Your task to perform on an android device: open app "Paramount+ | Peak Streaming" (install if not already installed) and go to login screen Image 0: 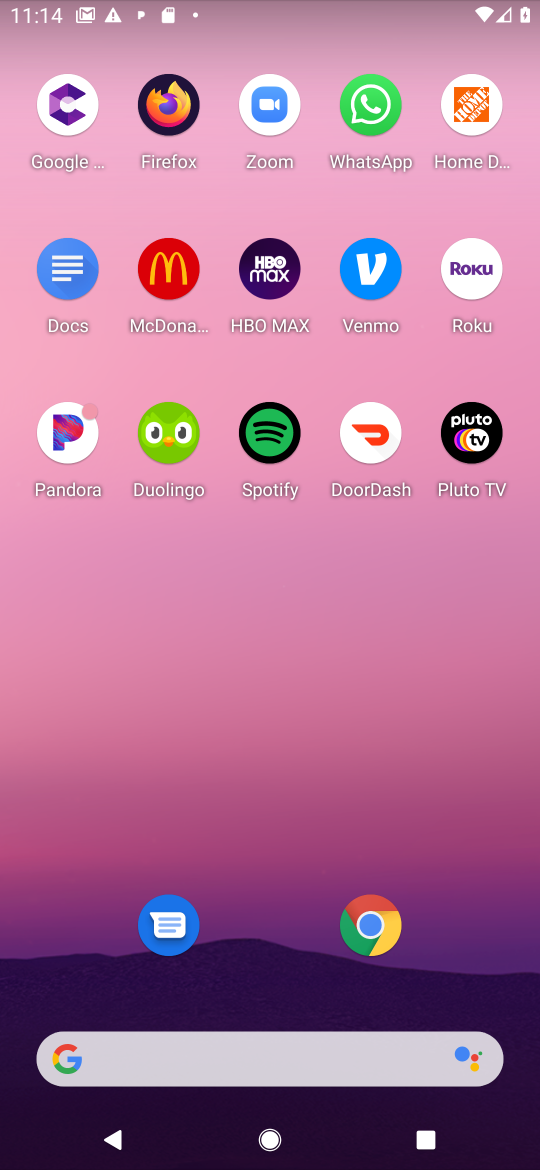
Step 0: drag from (274, 766) to (317, 119)
Your task to perform on an android device: open app "Paramount+ | Peak Streaming" (install if not already installed) and go to login screen Image 1: 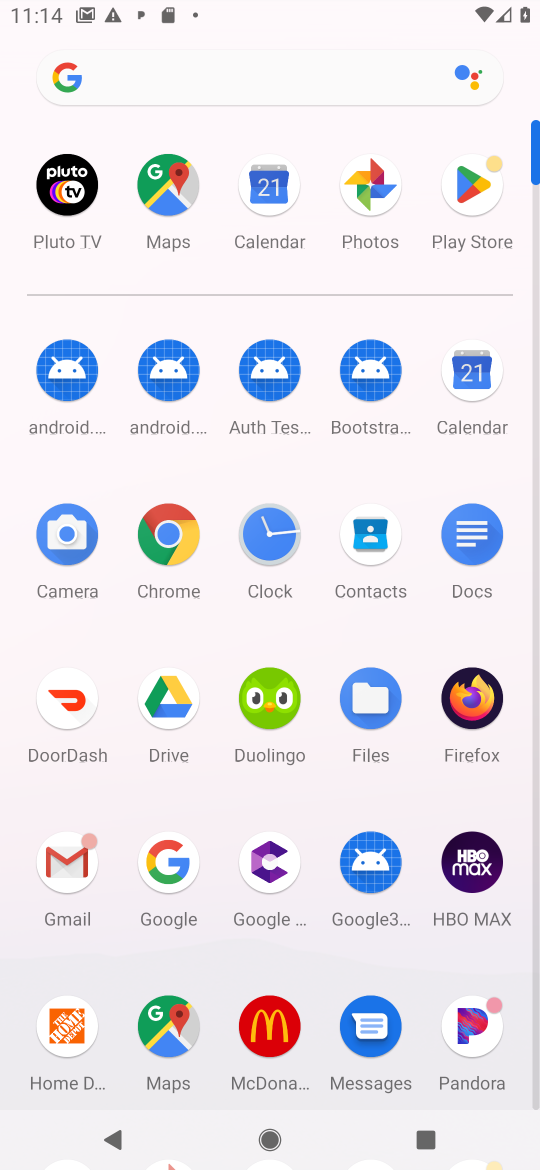
Step 1: click (473, 184)
Your task to perform on an android device: open app "Paramount+ | Peak Streaming" (install if not already installed) and go to login screen Image 2: 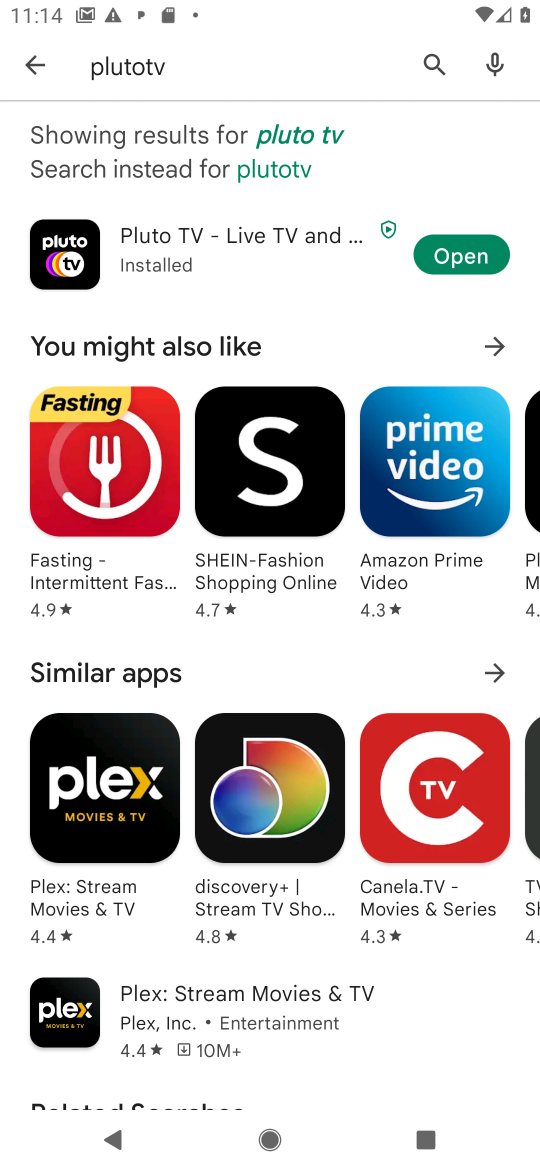
Step 2: click (424, 85)
Your task to perform on an android device: open app "Paramount+ | Peak Streaming" (install if not already installed) and go to login screen Image 3: 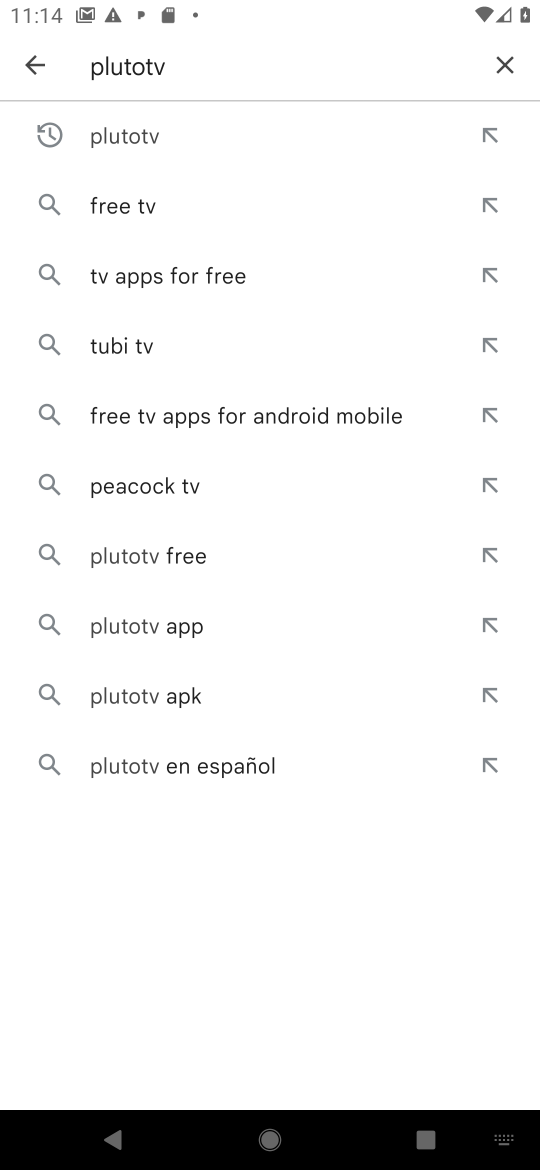
Step 3: click (517, 49)
Your task to perform on an android device: open app "Paramount+ | Peak Streaming" (install if not already installed) and go to login screen Image 4: 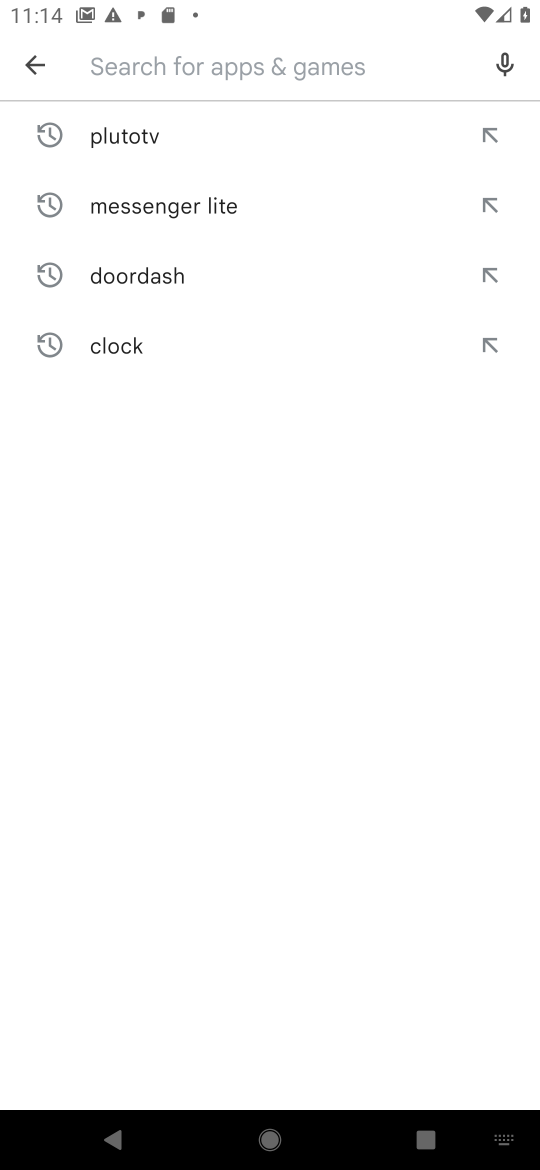
Step 4: click (276, 67)
Your task to perform on an android device: open app "Paramount+ | Peak Streaming" (install if not already installed) and go to login screen Image 5: 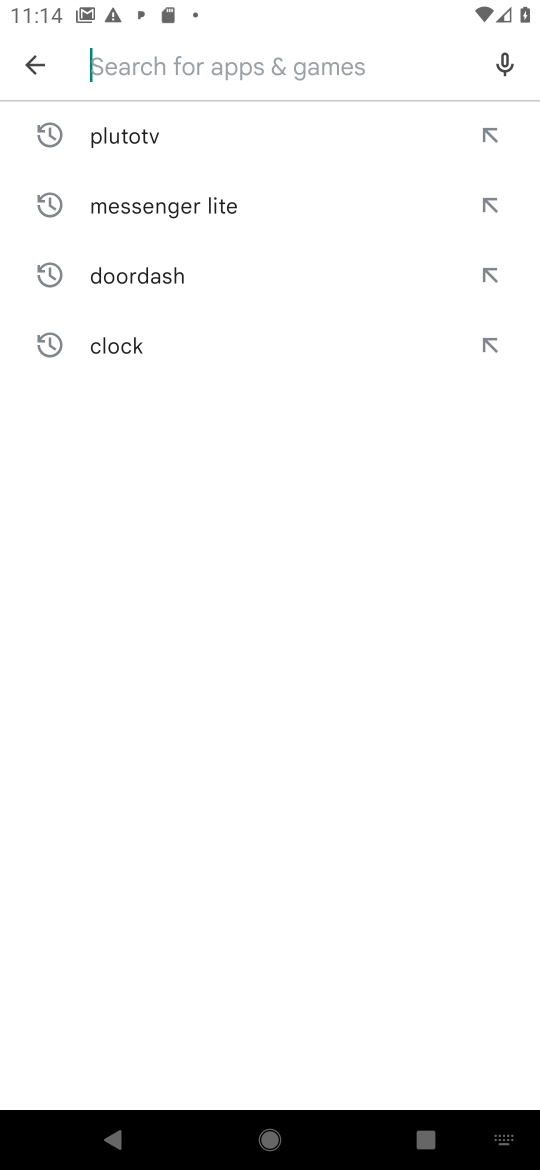
Step 5: type "paramount"
Your task to perform on an android device: open app "Paramount+ | Peak Streaming" (install if not already installed) and go to login screen Image 6: 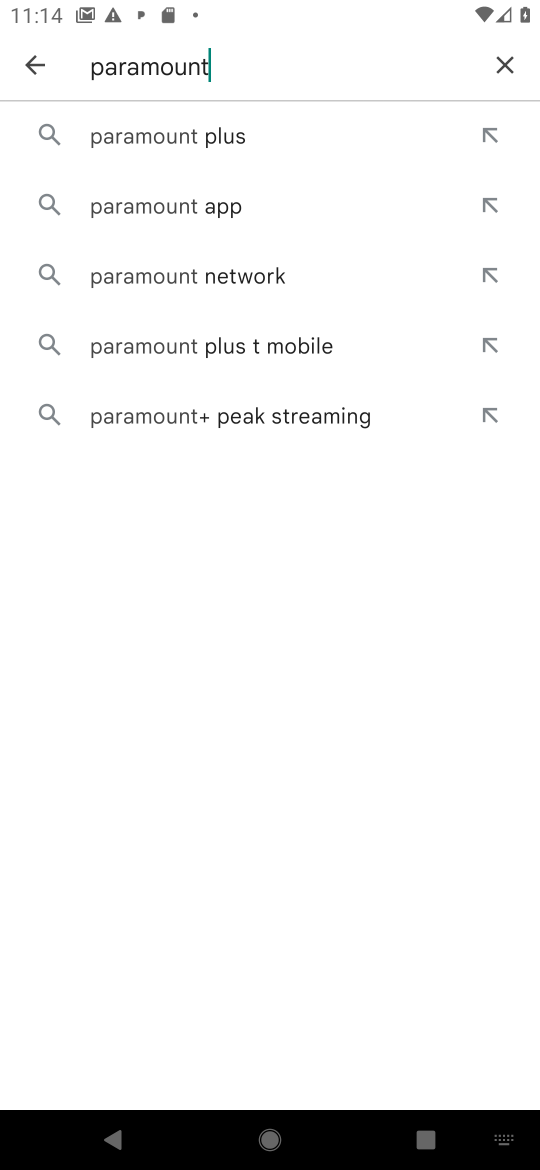
Step 6: click (275, 123)
Your task to perform on an android device: open app "Paramount+ | Peak Streaming" (install if not already installed) and go to login screen Image 7: 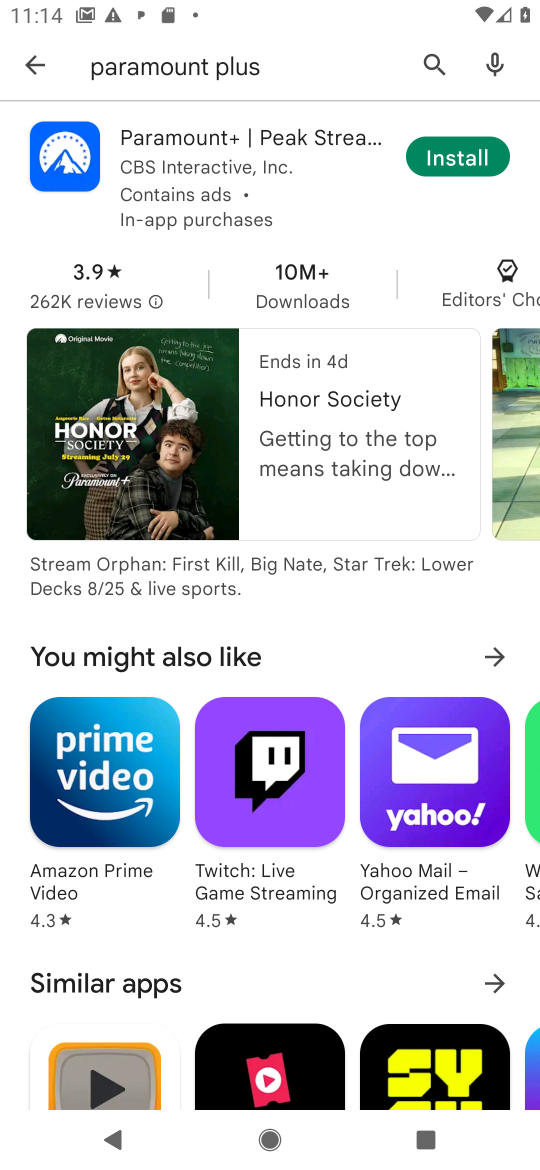
Step 7: click (477, 145)
Your task to perform on an android device: open app "Paramount+ | Peak Streaming" (install if not already installed) and go to login screen Image 8: 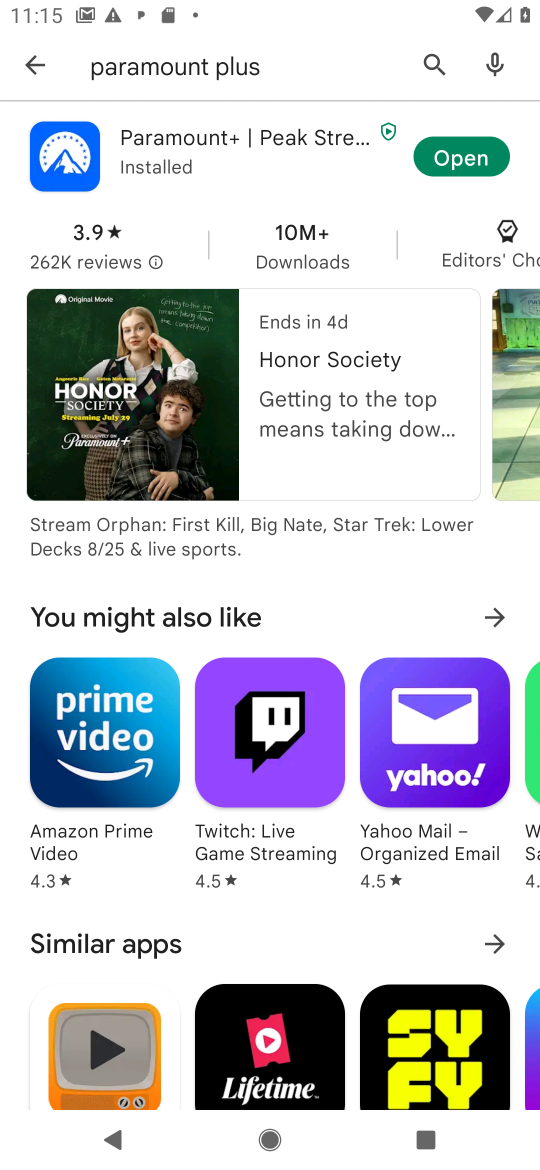
Step 8: click (464, 151)
Your task to perform on an android device: open app "Paramount+ | Peak Streaming" (install if not already installed) and go to login screen Image 9: 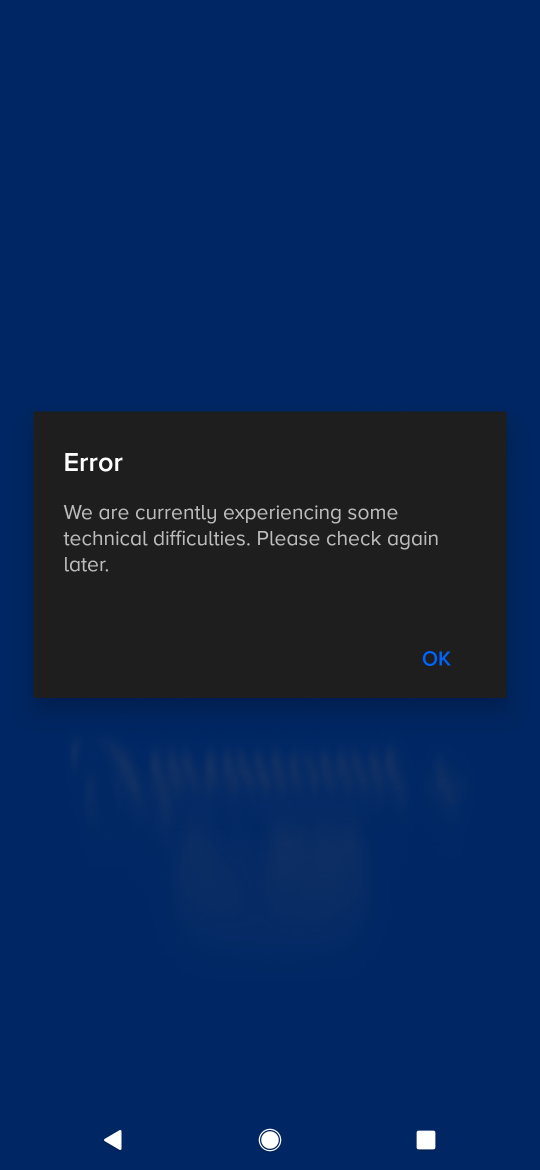
Step 9: click (440, 655)
Your task to perform on an android device: open app "Paramount+ | Peak Streaming" (install if not already installed) and go to login screen Image 10: 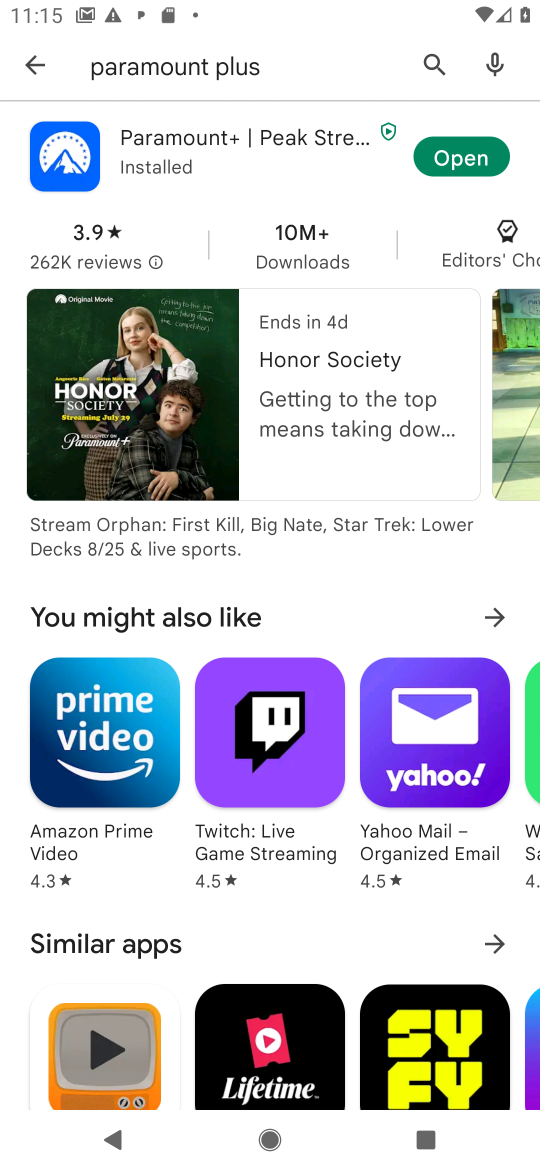
Step 10: task complete